Your task to perform on an android device: turn off smart reply in the gmail app Image 0: 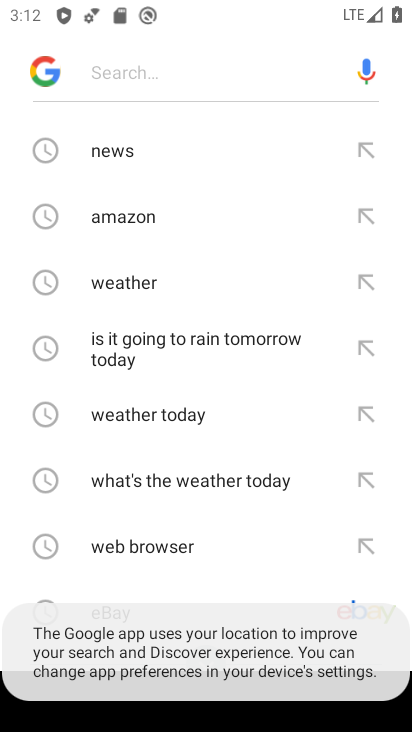
Step 0: press home button
Your task to perform on an android device: turn off smart reply in the gmail app Image 1: 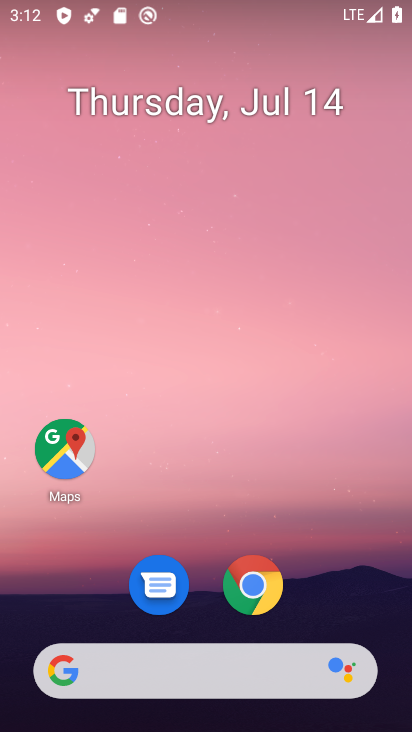
Step 1: drag from (304, 503) to (285, 87)
Your task to perform on an android device: turn off smart reply in the gmail app Image 2: 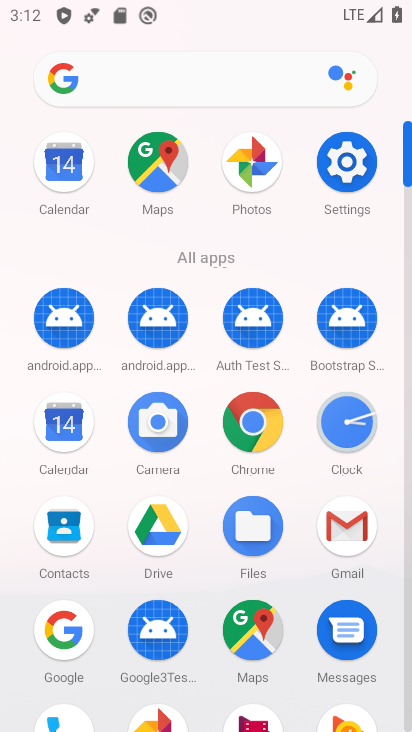
Step 2: click (341, 535)
Your task to perform on an android device: turn off smart reply in the gmail app Image 3: 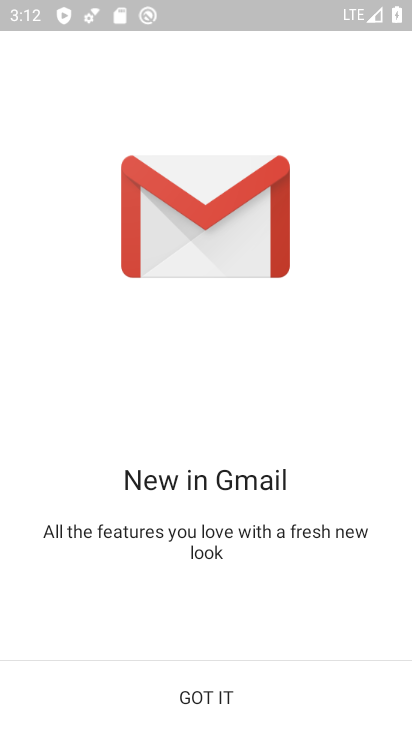
Step 3: click (240, 706)
Your task to perform on an android device: turn off smart reply in the gmail app Image 4: 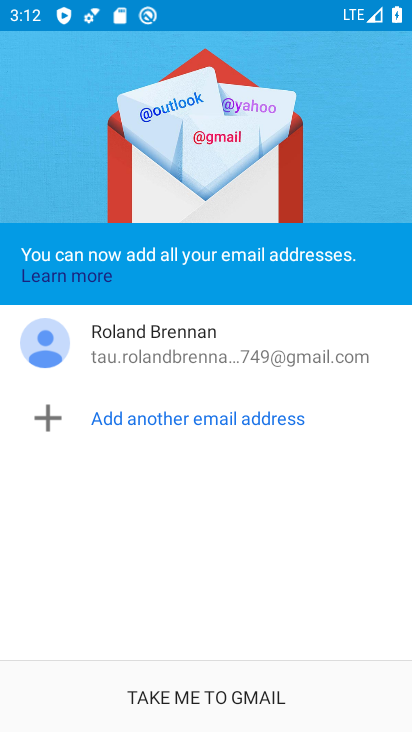
Step 4: click (240, 702)
Your task to perform on an android device: turn off smart reply in the gmail app Image 5: 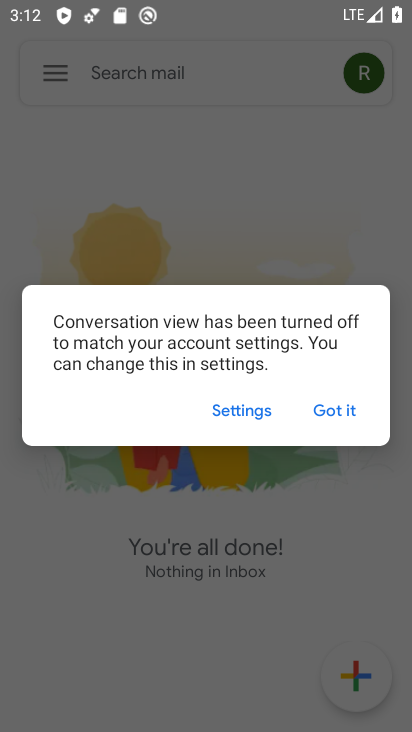
Step 5: click (347, 408)
Your task to perform on an android device: turn off smart reply in the gmail app Image 6: 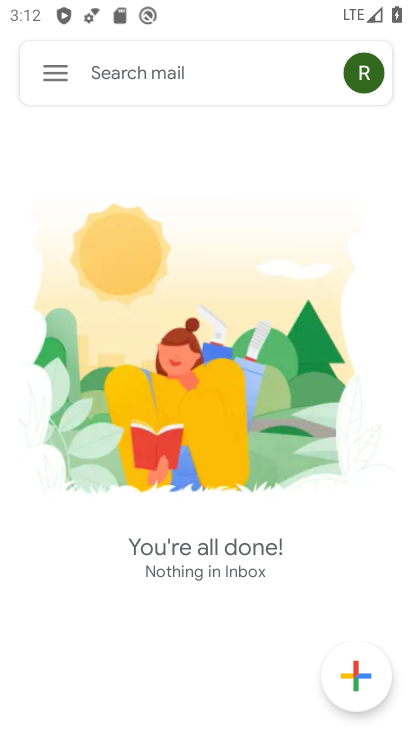
Step 6: click (54, 74)
Your task to perform on an android device: turn off smart reply in the gmail app Image 7: 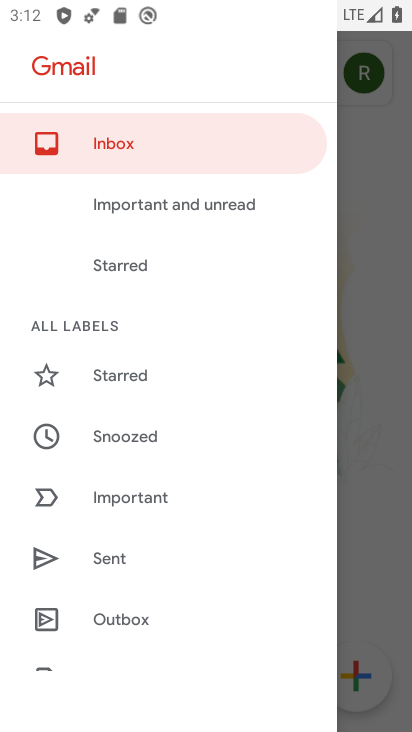
Step 7: drag from (149, 565) to (202, 16)
Your task to perform on an android device: turn off smart reply in the gmail app Image 8: 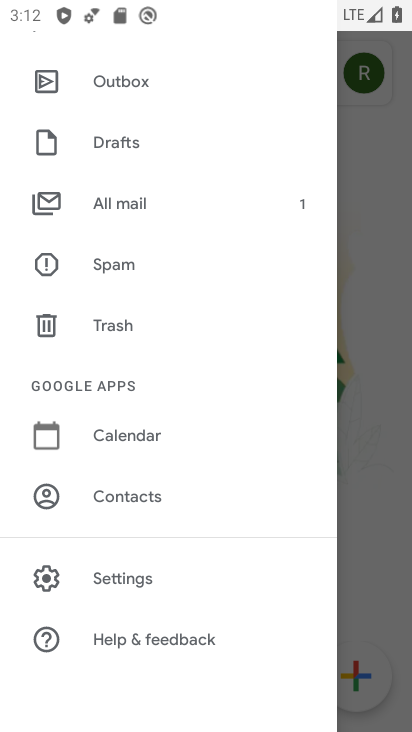
Step 8: click (127, 568)
Your task to perform on an android device: turn off smart reply in the gmail app Image 9: 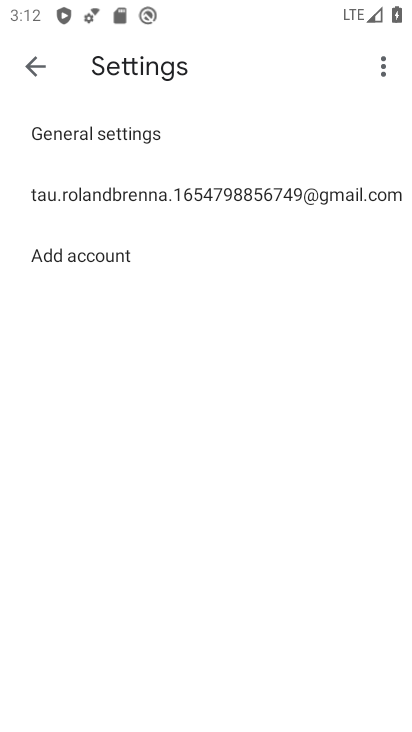
Step 9: click (234, 199)
Your task to perform on an android device: turn off smart reply in the gmail app Image 10: 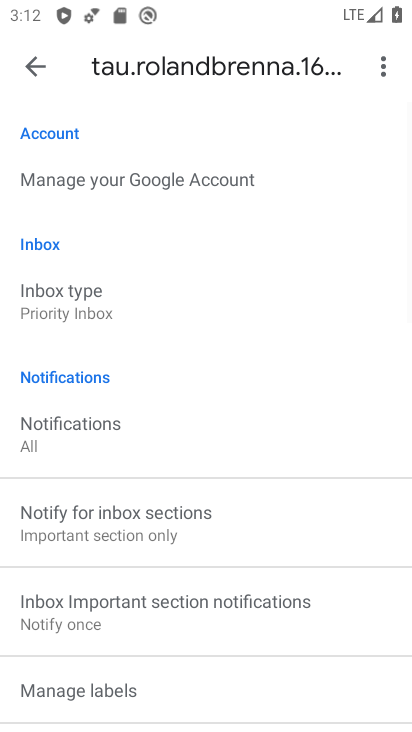
Step 10: drag from (255, 649) to (251, 0)
Your task to perform on an android device: turn off smart reply in the gmail app Image 11: 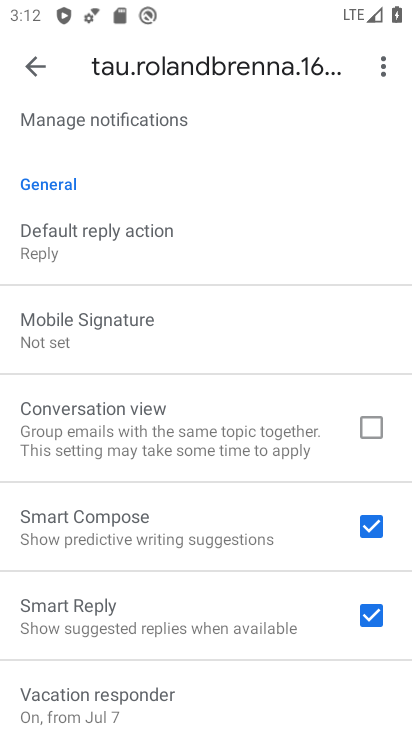
Step 11: drag from (305, 570) to (275, 358)
Your task to perform on an android device: turn off smart reply in the gmail app Image 12: 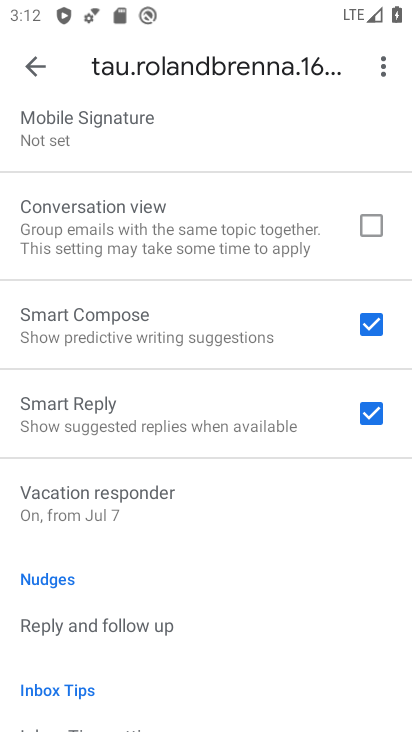
Step 12: click (365, 410)
Your task to perform on an android device: turn off smart reply in the gmail app Image 13: 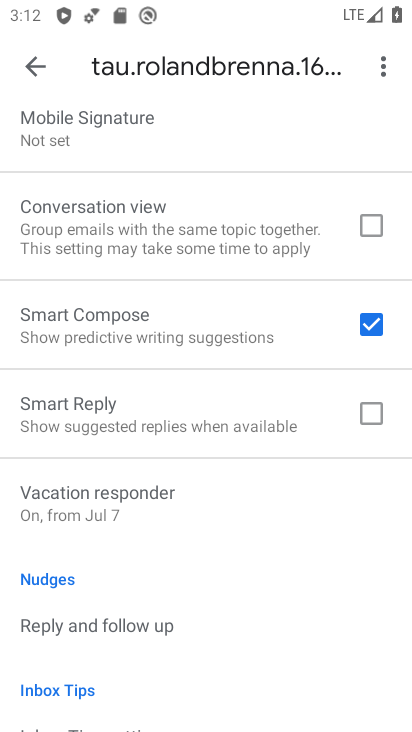
Step 13: task complete